Your task to perform on an android device: Is it going to rain today? Image 0: 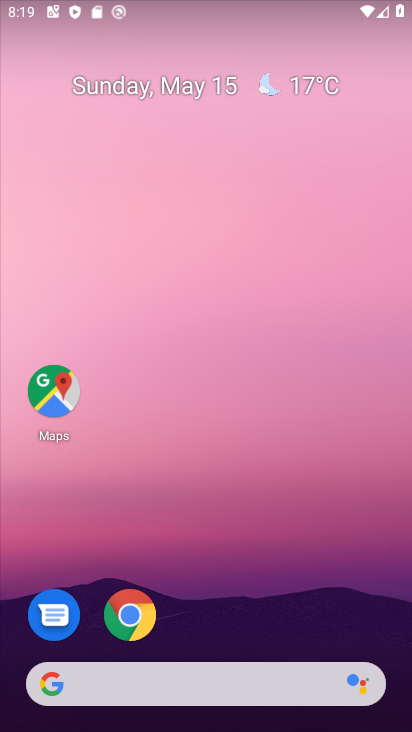
Step 0: click (327, 83)
Your task to perform on an android device: Is it going to rain today? Image 1: 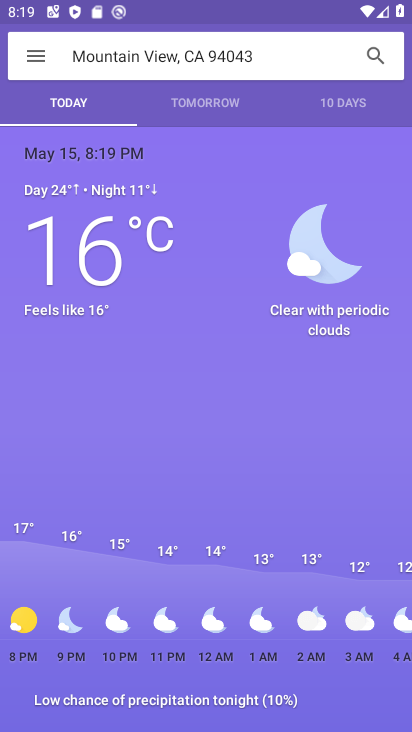
Step 1: task complete